Your task to perform on an android device: turn notification dots off Image 0: 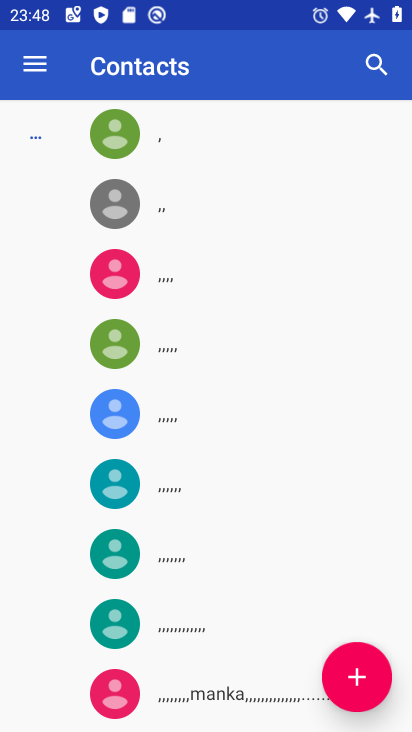
Step 0: press back button
Your task to perform on an android device: turn notification dots off Image 1: 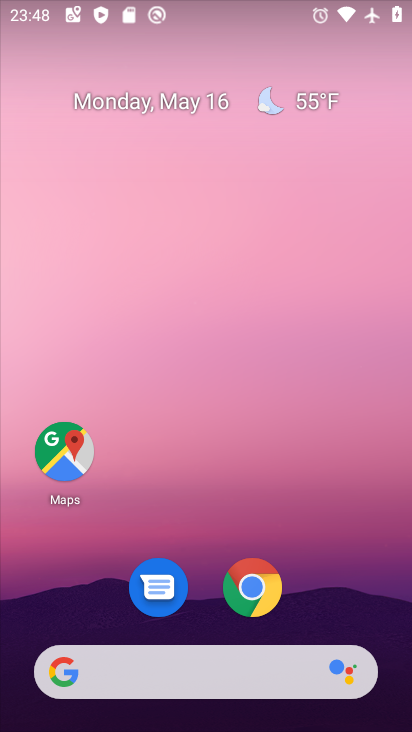
Step 1: drag from (319, 622) to (262, 0)
Your task to perform on an android device: turn notification dots off Image 2: 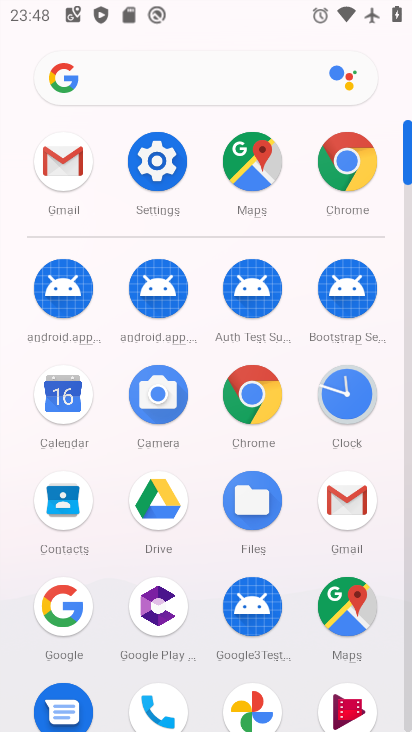
Step 2: click (156, 153)
Your task to perform on an android device: turn notification dots off Image 3: 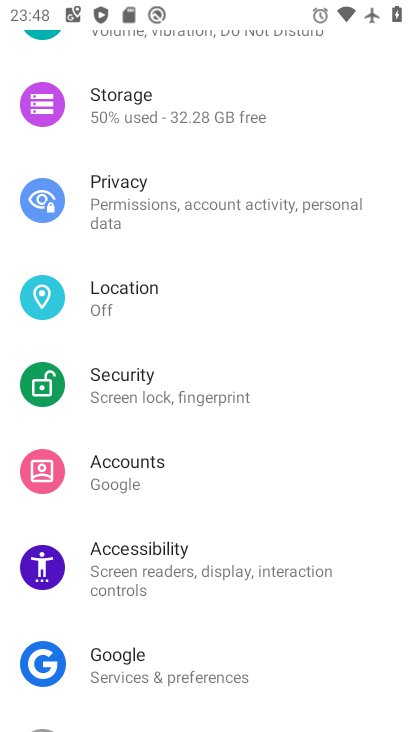
Step 3: drag from (233, 514) to (259, 46)
Your task to perform on an android device: turn notification dots off Image 4: 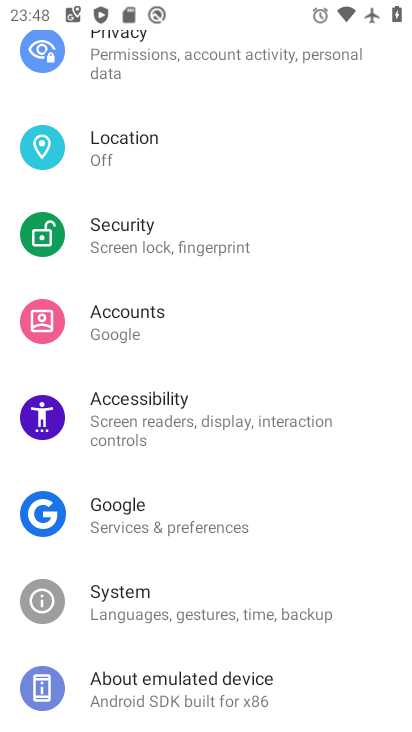
Step 4: drag from (252, 131) to (234, 504)
Your task to perform on an android device: turn notification dots off Image 5: 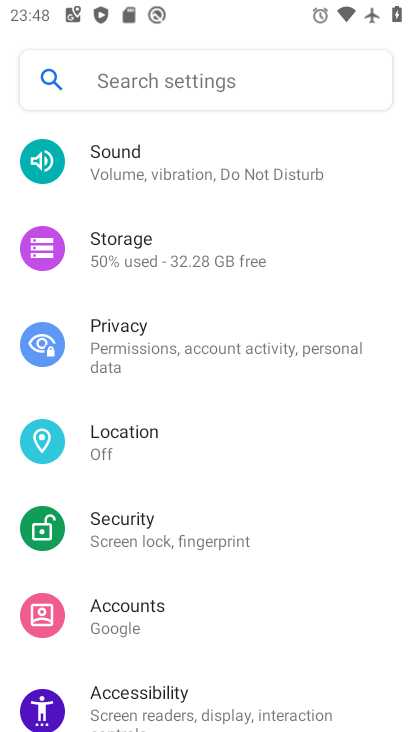
Step 5: drag from (224, 209) to (256, 554)
Your task to perform on an android device: turn notification dots off Image 6: 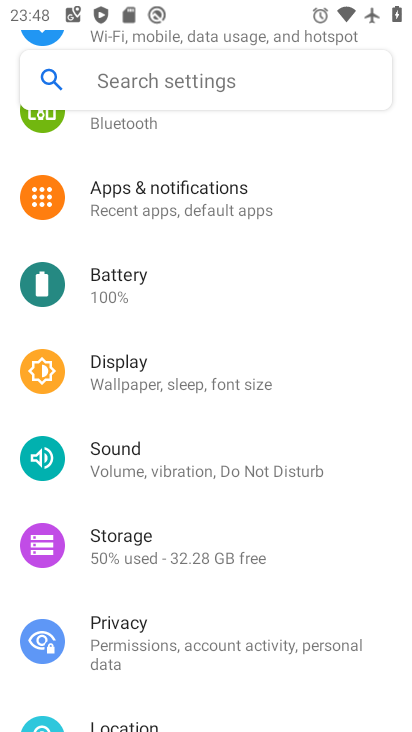
Step 6: click (203, 169)
Your task to perform on an android device: turn notification dots off Image 7: 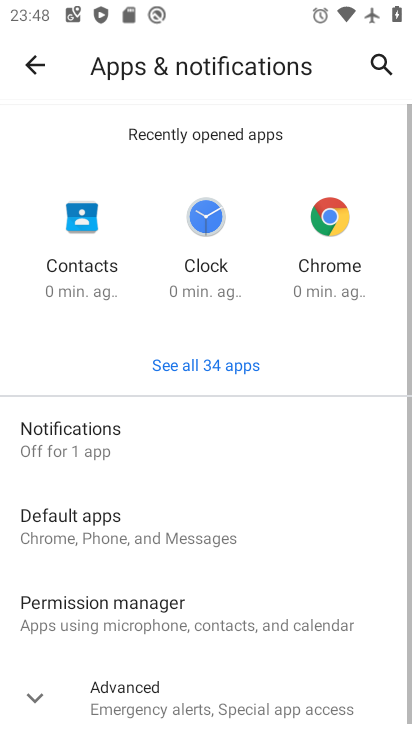
Step 7: click (172, 449)
Your task to perform on an android device: turn notification dots off Image 8: 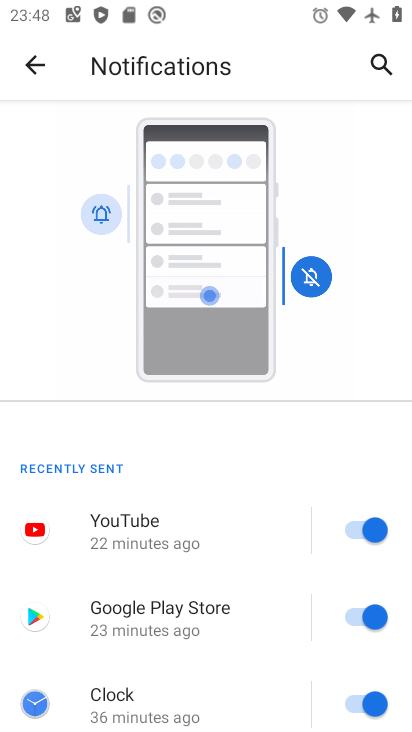
Step 8: drag from (171, 610) to (173, 149)
Your task to perform on an android device: turn notification dots off Image 9: 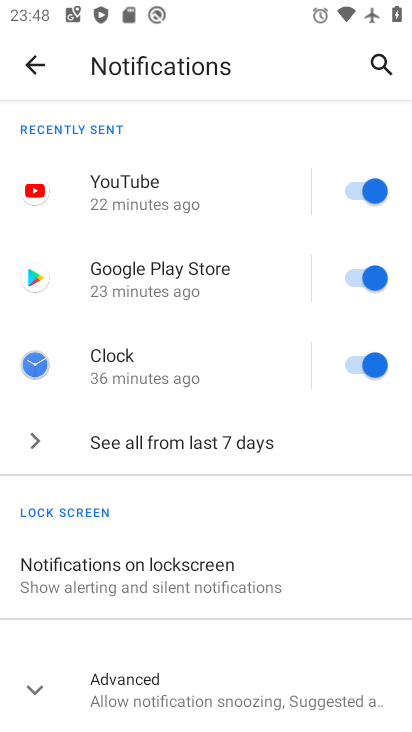
Step 9: drag from (238, 564) to (205, 255)
Your task to perform on an android device: turn notification dots off Image 10: 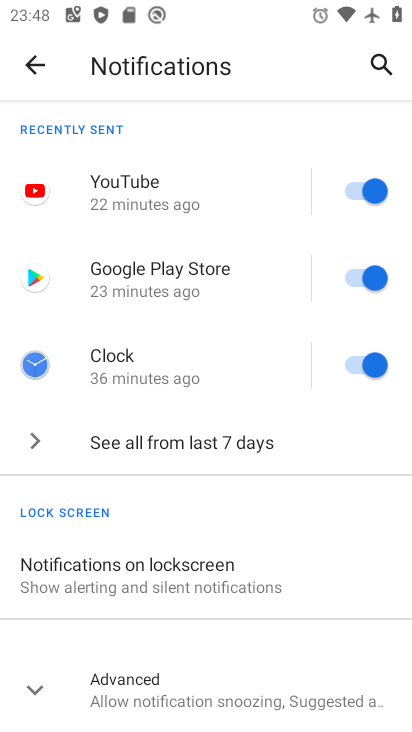
Step 10: click (103, 676)
Your task to perform on an android device: turn notification dots off Image 11: 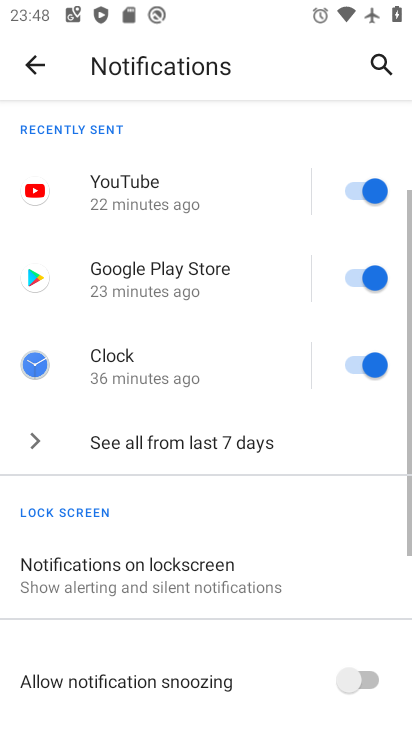
Step 11: drag from (186, 602) to (186, 200)
Your task to perform on an android device: turn notification dots off Image 12: 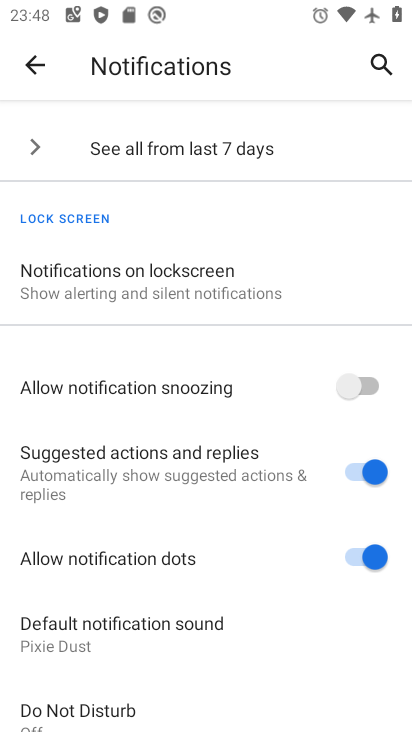
Step 12: click (371, 551)
Your task to perform on an android device: turn notification dots off Image 13: 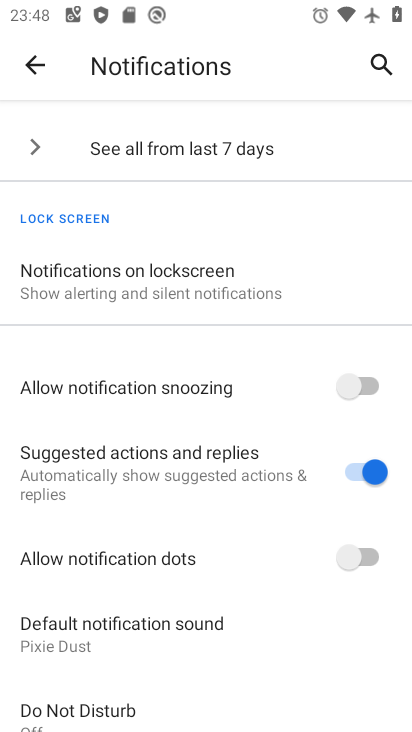
Step 13: task complete